Your task to perform on an android device: Open my contact list Image 0: 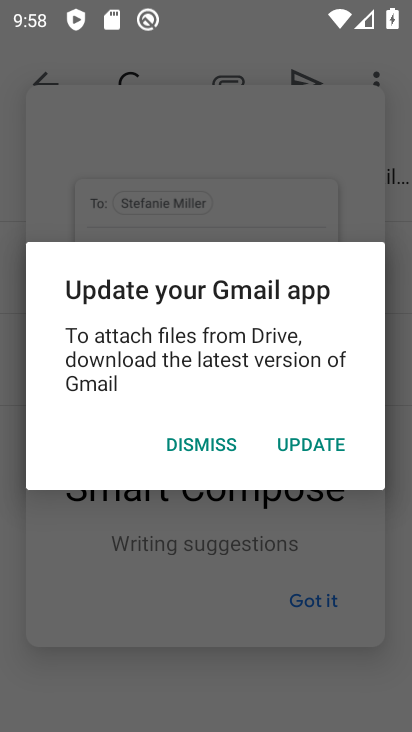
Step 0: press home button
Your task to perform on an android device: Open my contact list Image 1: 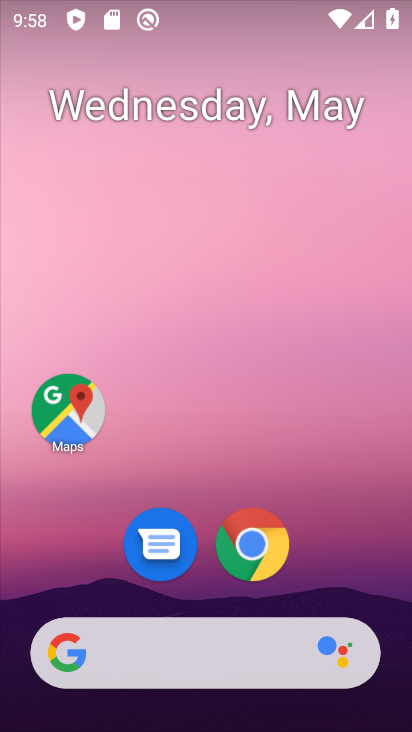
Step 1: drag from (277, 626) to (341, 40)
Your task to perform on an android device: Open my contact list Image 2: 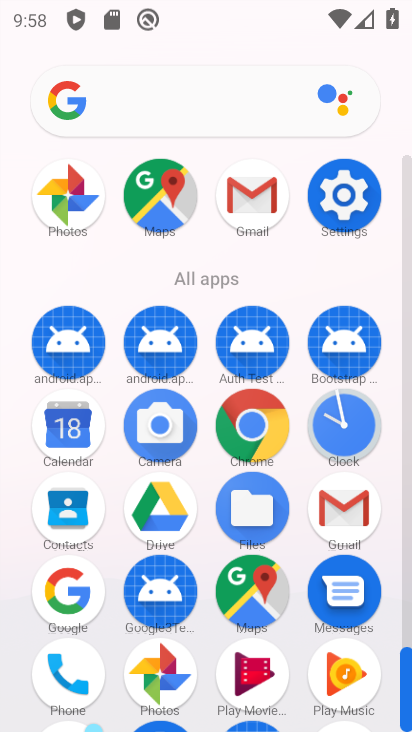
Step 2: click (83, 419)
Your task to perform on an android device: Open my contact list Image 3: 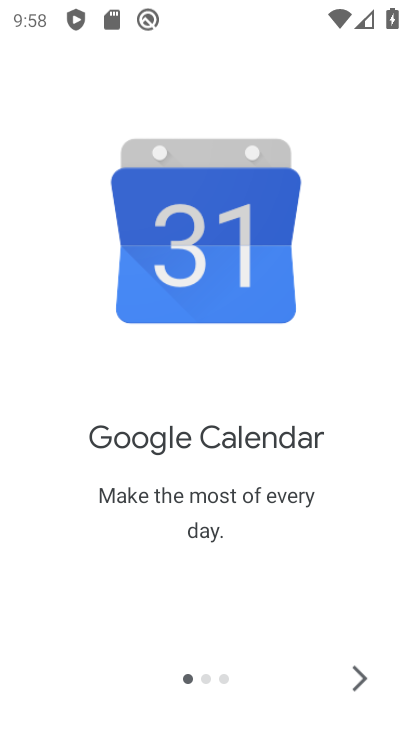
Step 3: click (357, 670)
Your task to perform on an android device: Open my contact list Image 4: 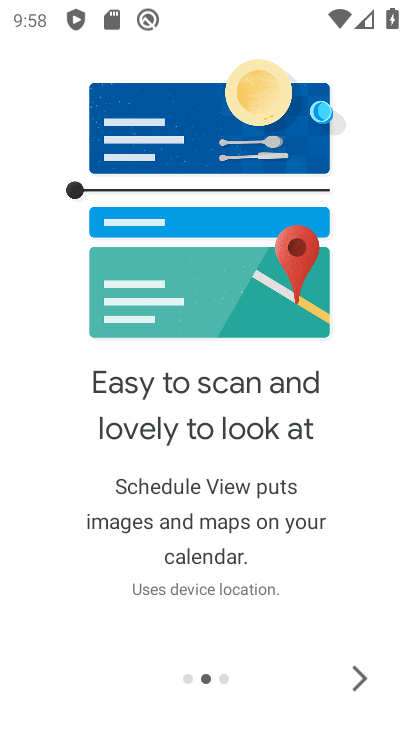
Step 4: click (363, 679)
Your task to perform on an android device: Open my contact list Image 5: 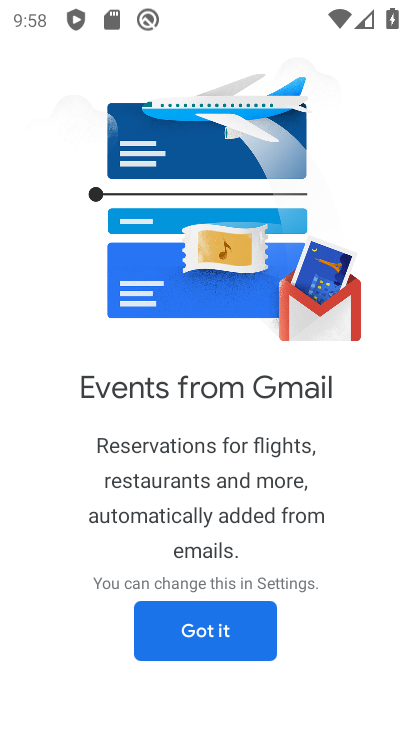
Step 5: click (257, 624)
Your task to perform on an android device: Open my contact list Image 6: 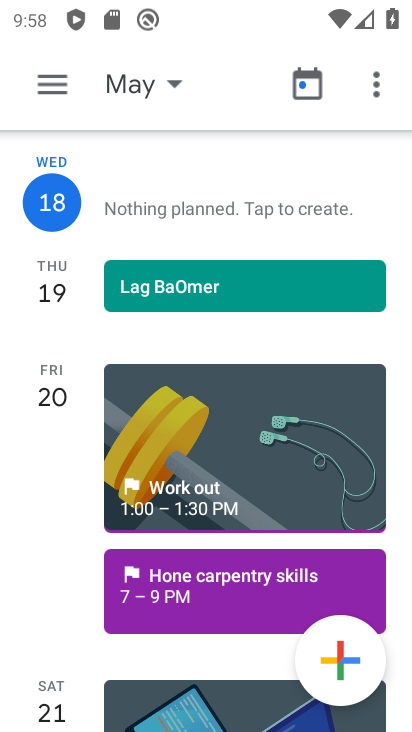
Step 6: press home button
Your task to perform on an android device: Open my contact list Image 7: 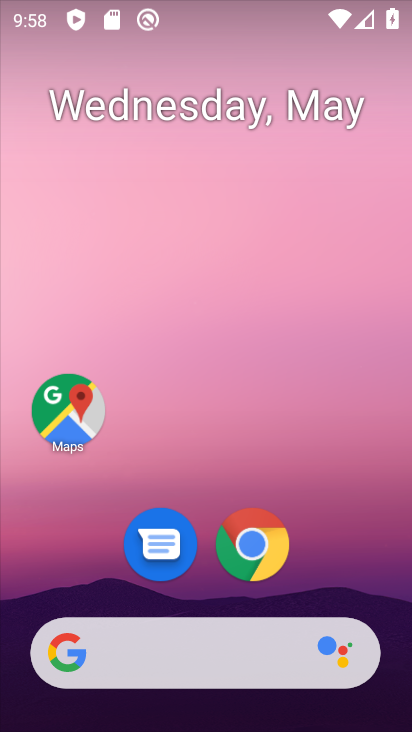
Step 7: drag from (259, 605) to (252, 3)
Your task to perform on an android device: Open my contact list Image 8: 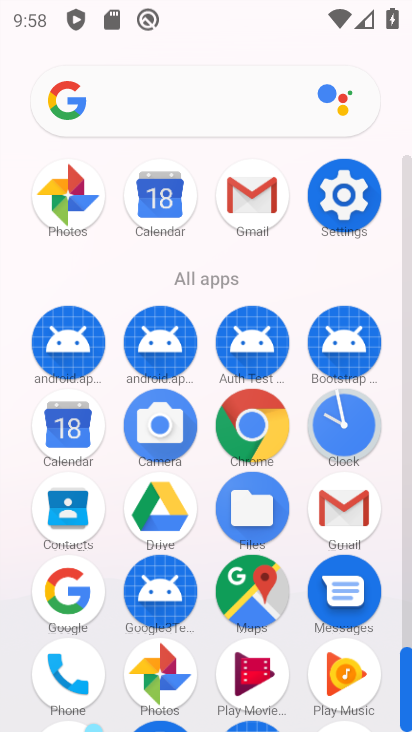
Step 8: click (58, 505)
Your task to perform on an android device: Open my contact list Image 9: 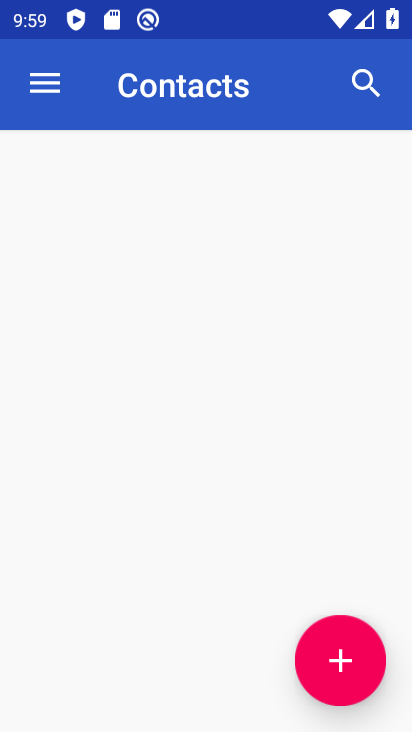
Step 9: task complete